Your task to perform on an android device: set default search engine in the chrome app Image 0: 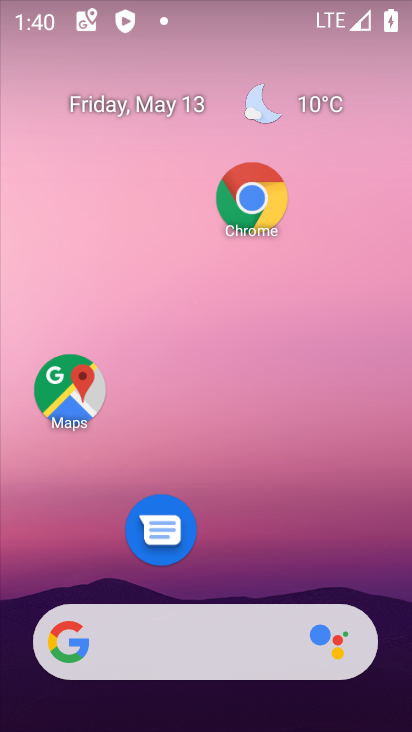
Step 0: click (258, 202)
Your task to perform on an android device: set default search engine in the chrome app Image 1: 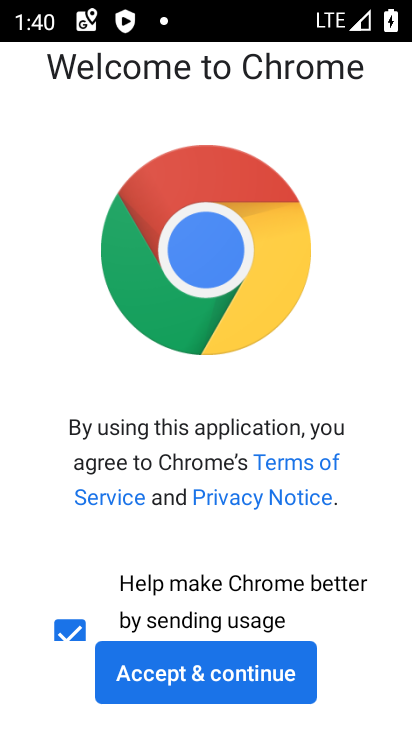
Step 1: click (138, 666)
Your task to perform on an android device: set default search engine in the chrome app Image 2: 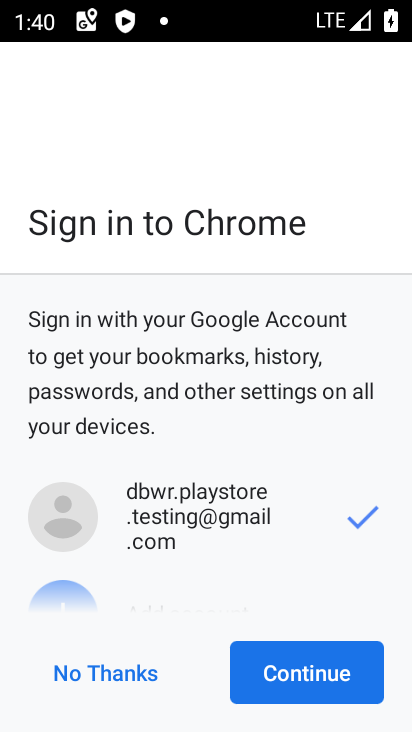
Step 2: click (341, 673)
Your task to perform on an android device: set default search engine in the chrome app Image 3: 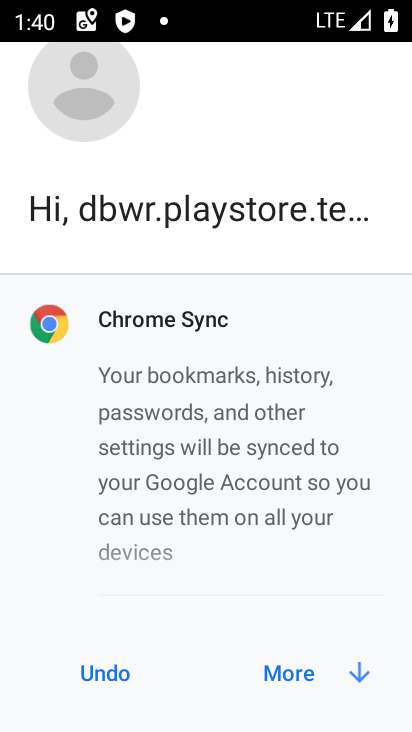
Step 3: click (338, 673)
Your task to perform on an android device: set default search engine in the chrome app Image 4: 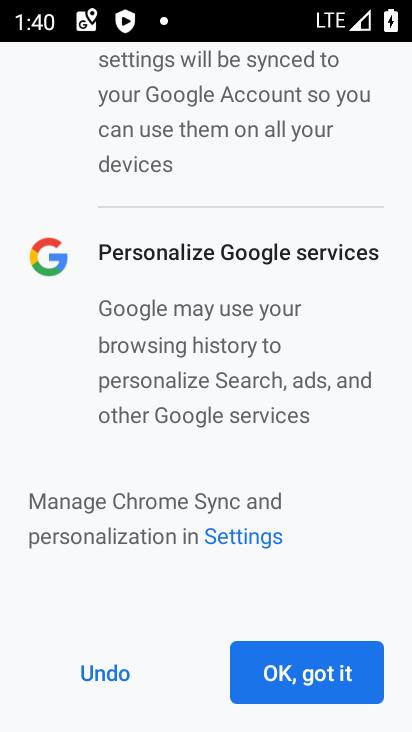
Step 4: click (336, 673)
Your task to perform on an android device: set default search engine in the chrome app Image 5: 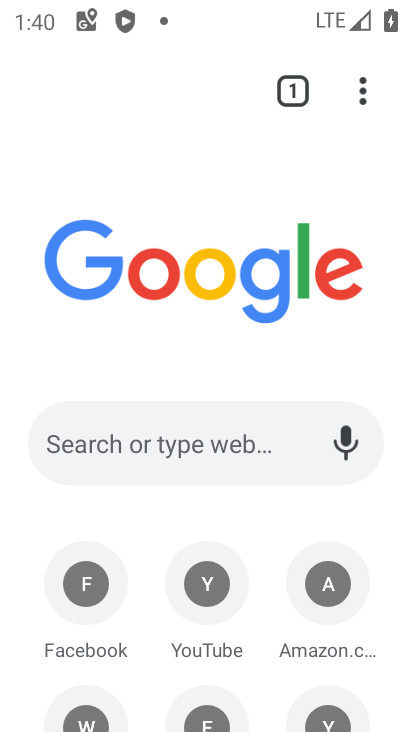
Step 5: click (359, 106)
Your task to perform on an android device: set default search engine in the chrome app Image 6: 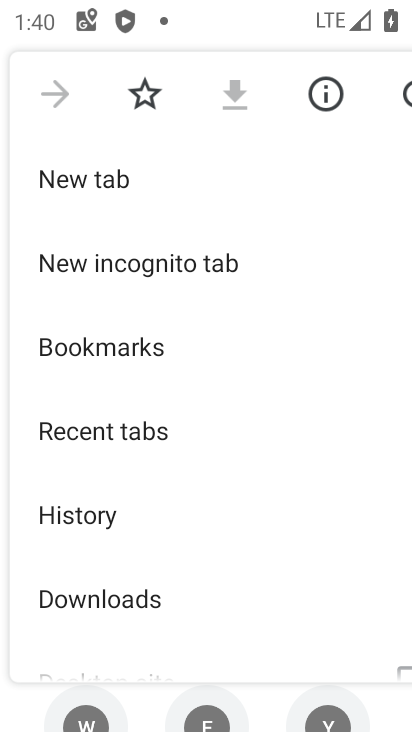
Step 6: drag from (151, 540) to (134, 92)
Your task to perform on an android device: set default search engine in the chrome app Image 7: 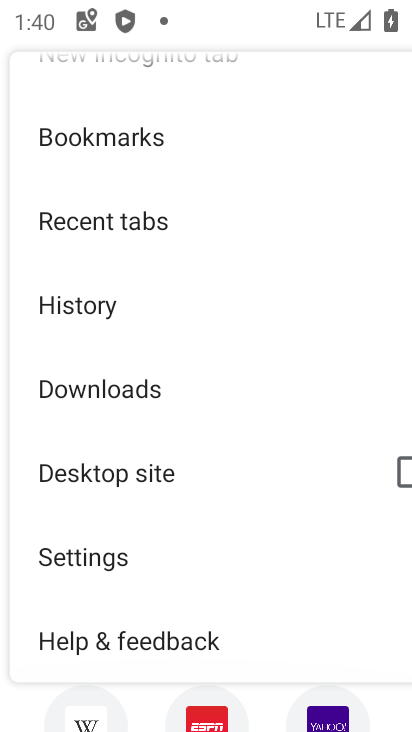
Step 7: click (103, 557)
Your task to perform on an android device: set default search engine in the chrome app Image 8: 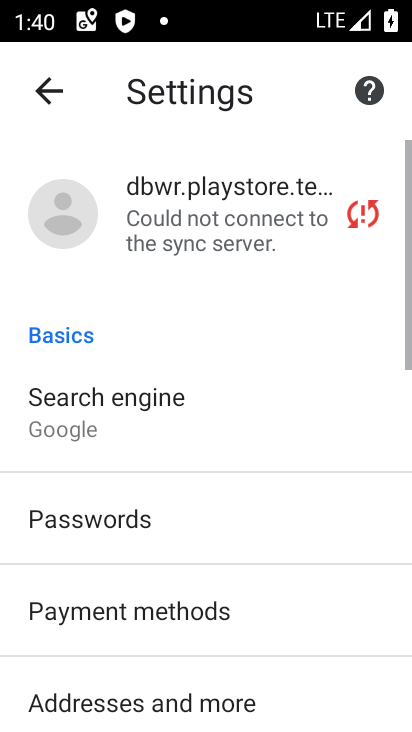
Step 8: click (153, 398)
Your task to perform on an android device: set default search engine in the chrome app Image 9: 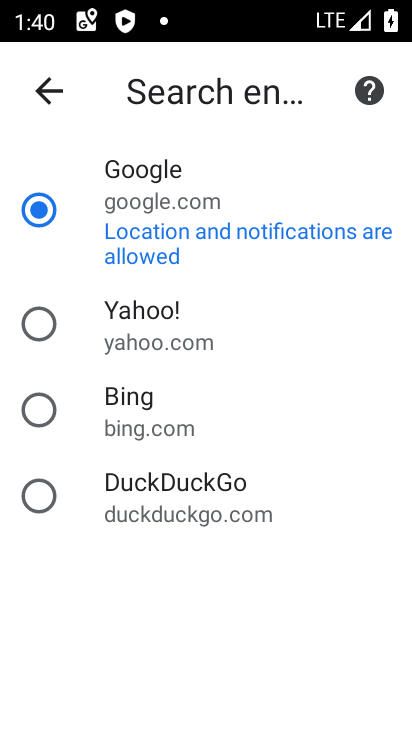
Step 9: click (66, 211)
Your task to perform on an android device: set default search engine in the chrome app Image 10: 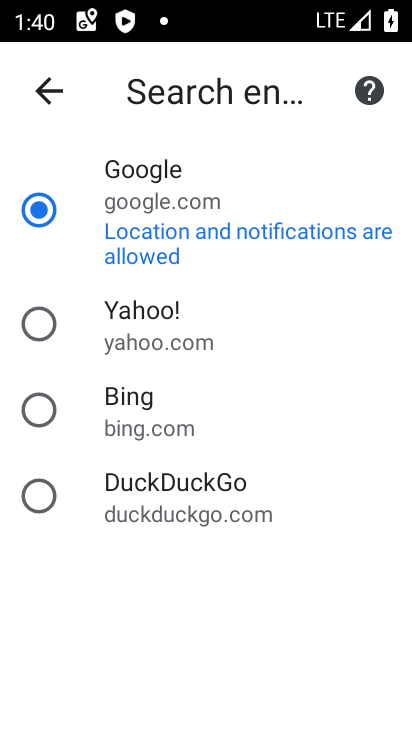
Step 10: task complete